Your task to perform on an android device: clear all cookies in the chrome app Image 0: 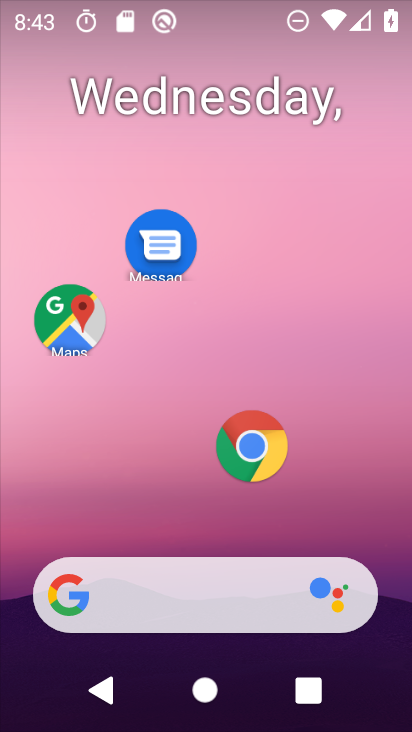
Step 0: click (244, 446)
Your task to perform on an android device: clear all cookies in the chrome app Image 1: 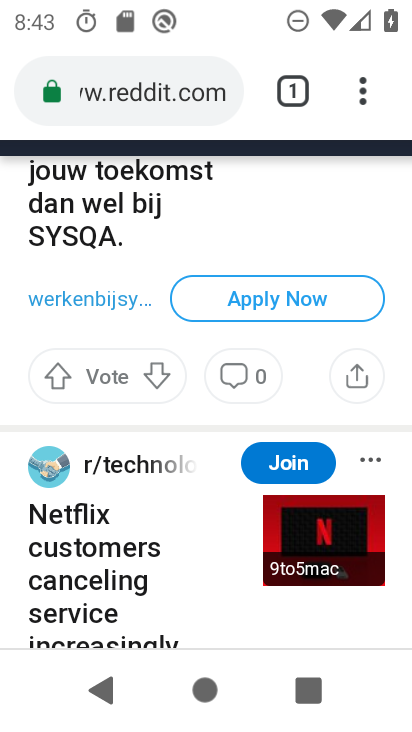
Step 1: click (358, 90)
Your task to perform on an android device: clear all cookies in the chrome app Image 2: 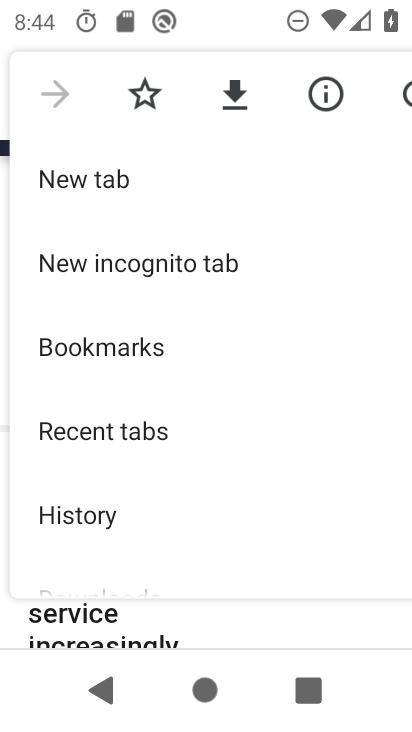
Step 2: click (138, 509)
Your task to perform on an android device: clear all cookies in the chrome app Image 3: 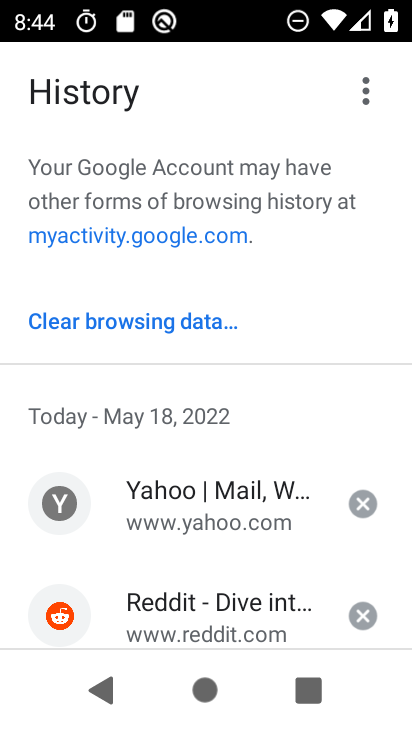
Step 3: click (146, 328)
Your task to perform on an android device: clear all cookies in the chrome app Image 4: 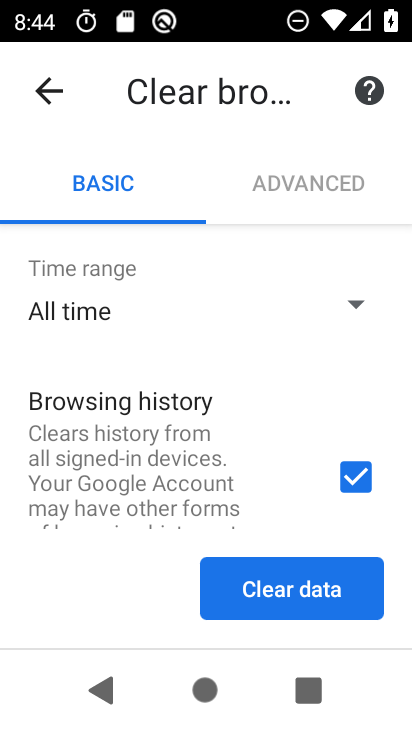
Step 4: drag from (258, 514) to (272, 259)
Your task to perform on an android device: clear all cookies in the chrome app Image 5: 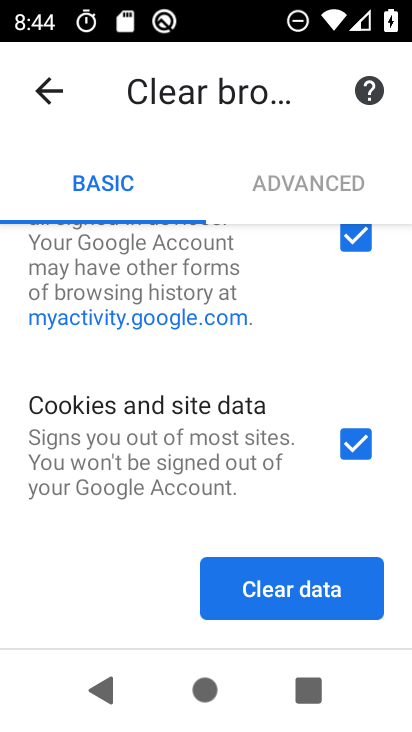
Step 5: click (347, 240)
Your task to perform on an android device: clear all cookies in the chrome app Image 6: 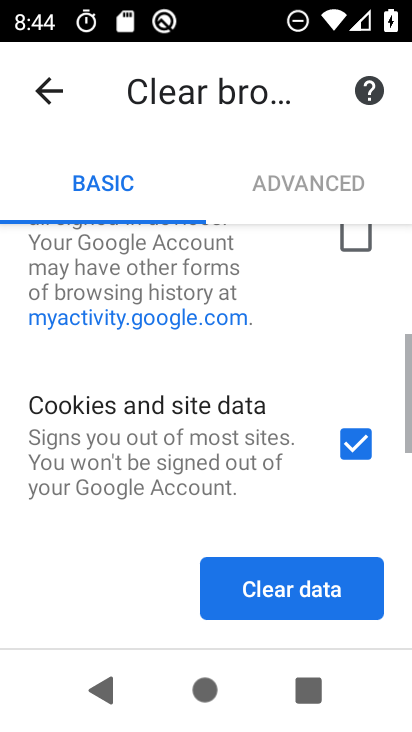
Step 6: drag from (262, 467) to (269, 181)
Your task to perform on an android device: clear all cookies in the chrome app Image 7: 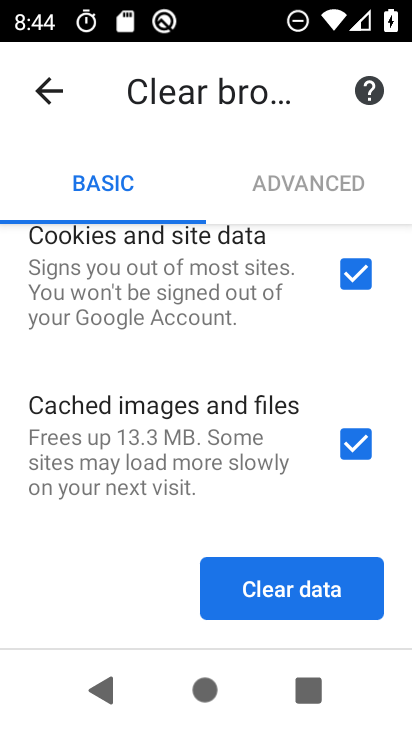
Step 7: click (359, 442)
Your task to perform on an android device: clear all cookies in the chrome app Image 8: 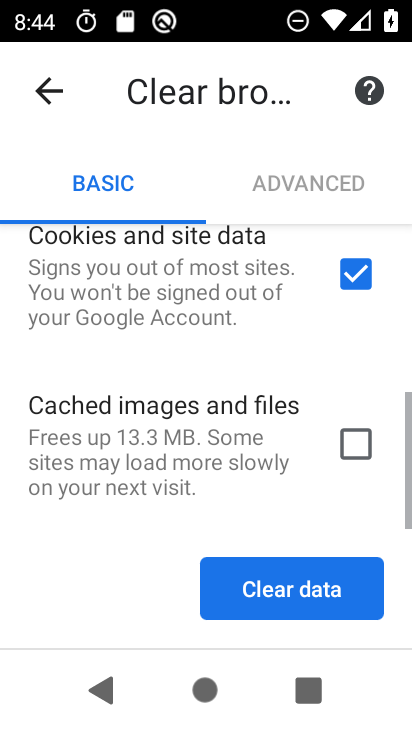
Step 8: click (300, 594)
Your task to perform on an android device: clear all cookies in the chrome app Image 9: 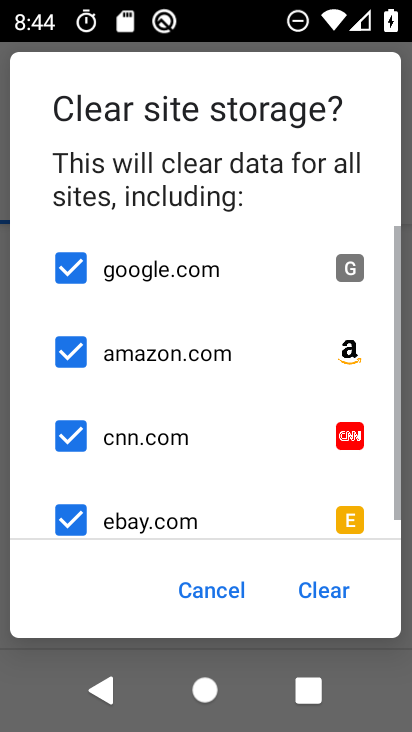
Step 9: click (325, 592)
Your task to perform on an android device: clear all cookies in the chrome app Image 10: 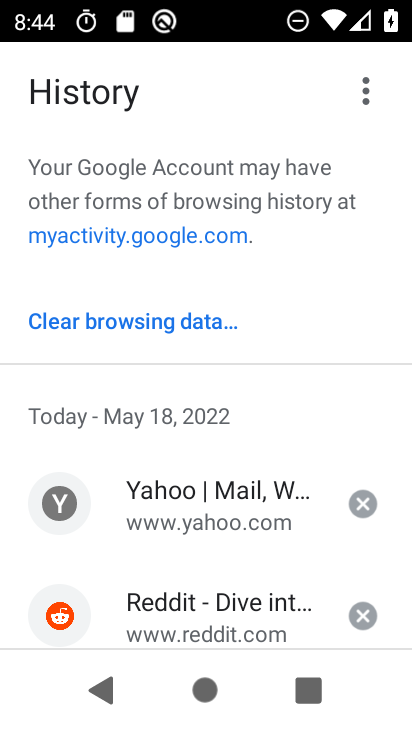
Step 10: task complete